Your task to perform on an android device: Who is the prime minister of the United Kingdom? Image 0: 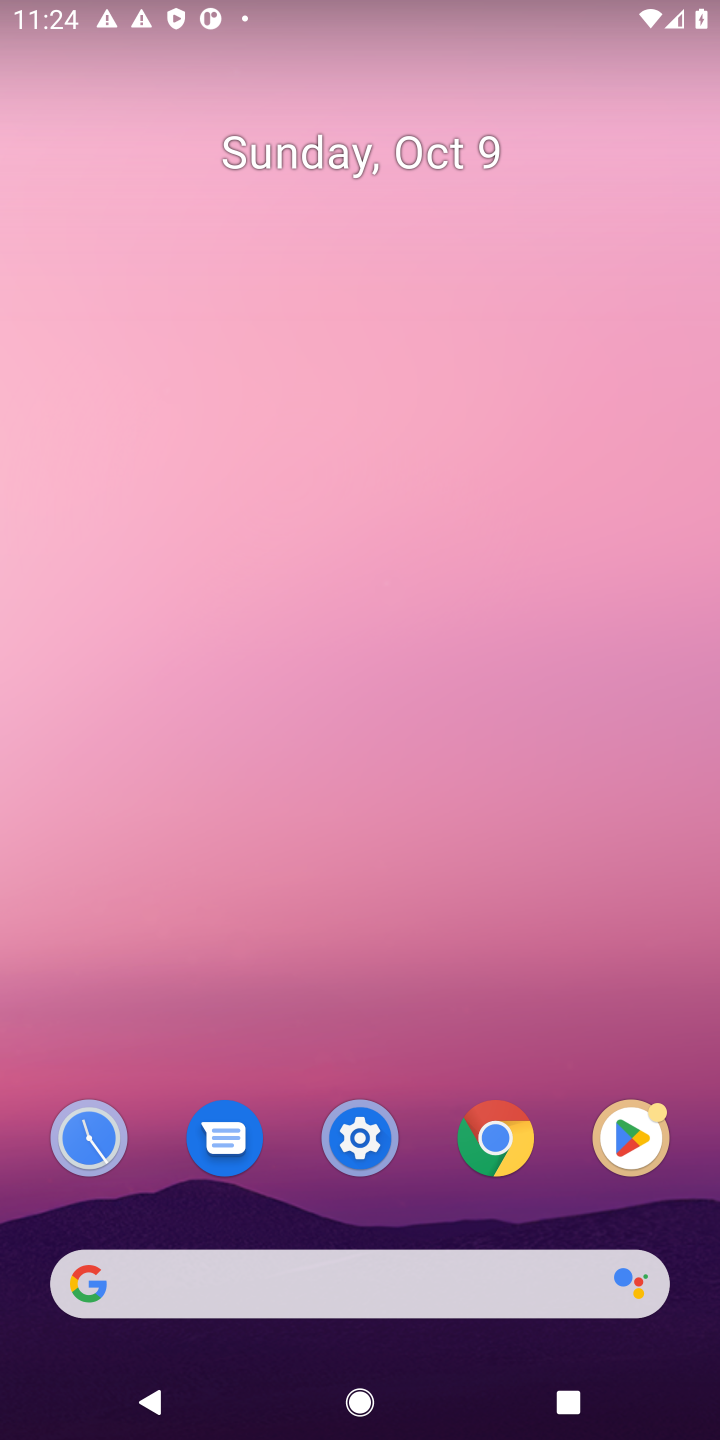
Step 0: click (518, 1132)
Your task to perform on an android device: Who is the prime minister of the United Kingdom? Image 1: 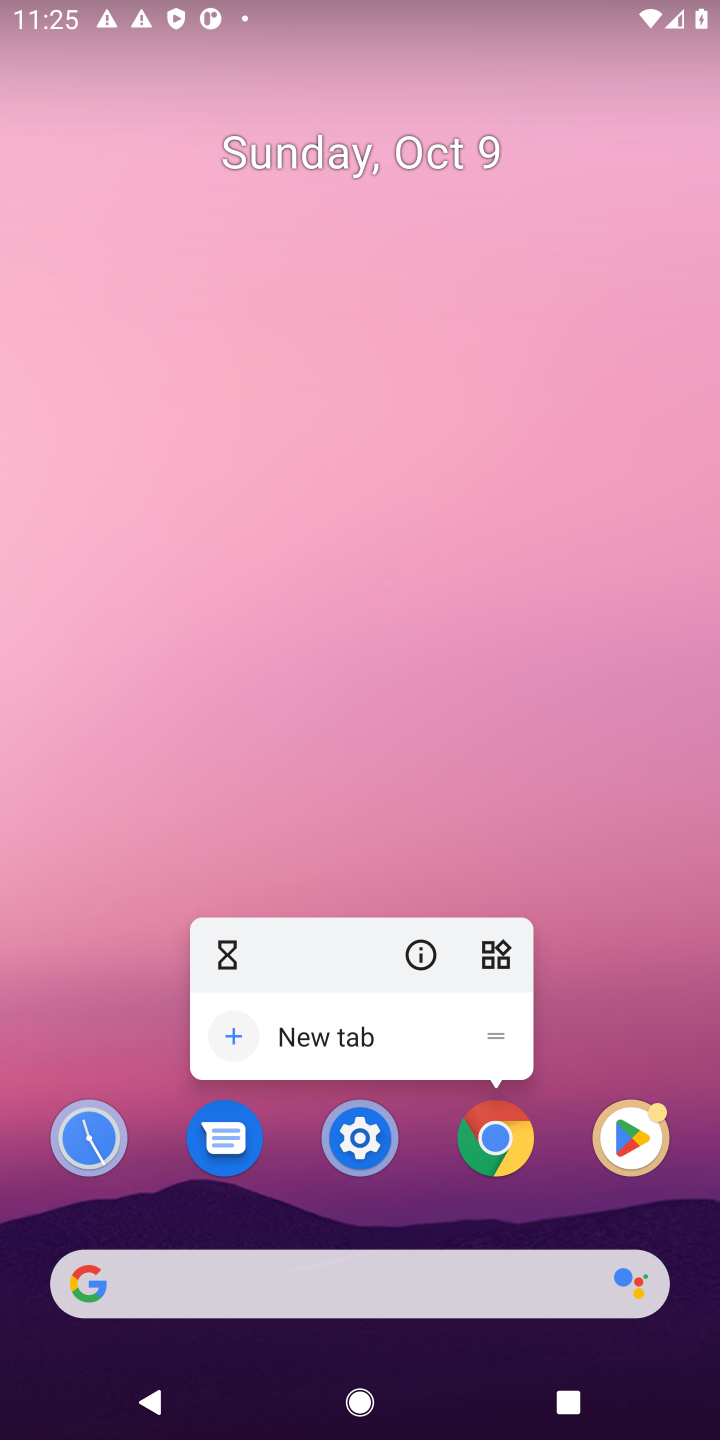
Step 1: click (494, 1136)
Your task to perform on an android device: Who is the prime minister of the United Kingdom? Image 2: 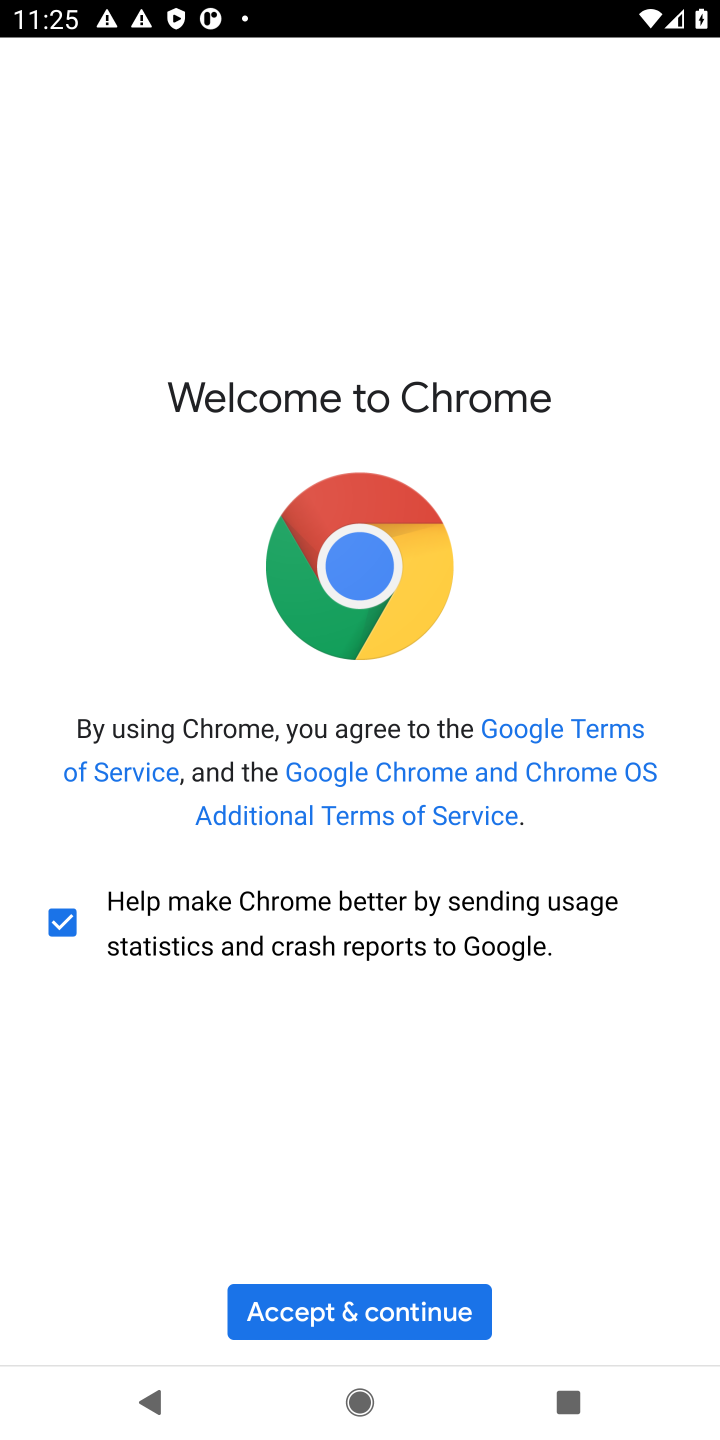
Step 2: click (272, 1315)
Your task to perform on an android device: Who is the prime minister of the United Kingdom? Image 3: 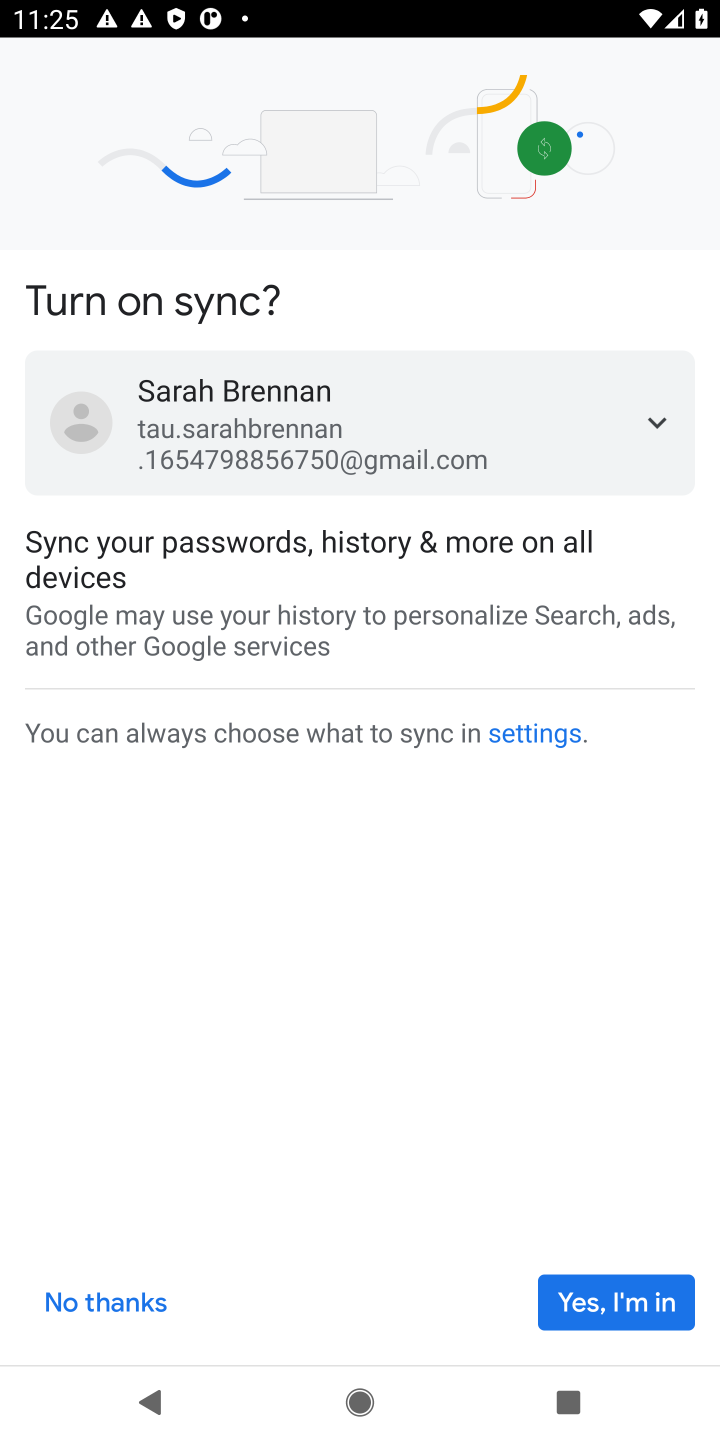
Step 3: click (626, 1283)
Your task to perform on an android device: Who is the prime minister of the United Kingdom? Image 4: 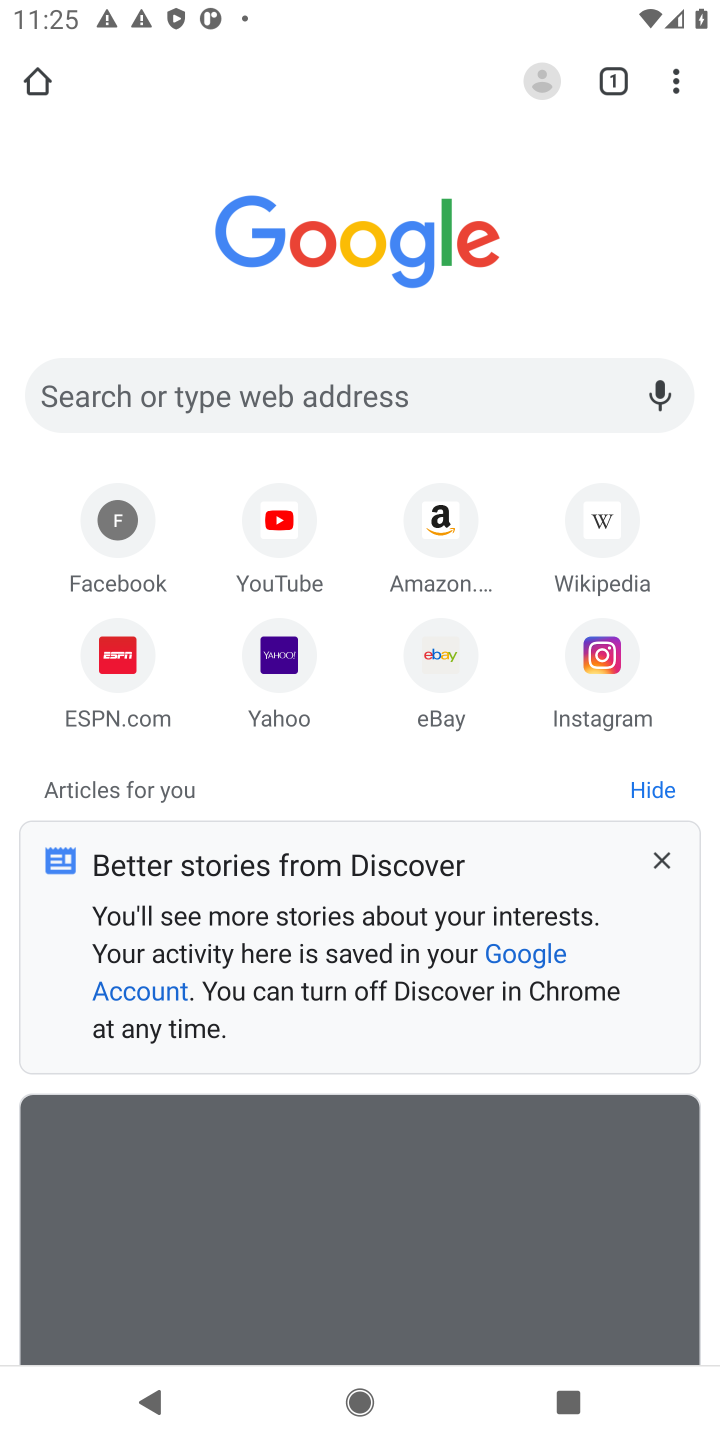
Step 4: click (305, 374)
Your task to perform on an android device: Who is the prime minister of the United Kingdom? Image 5: 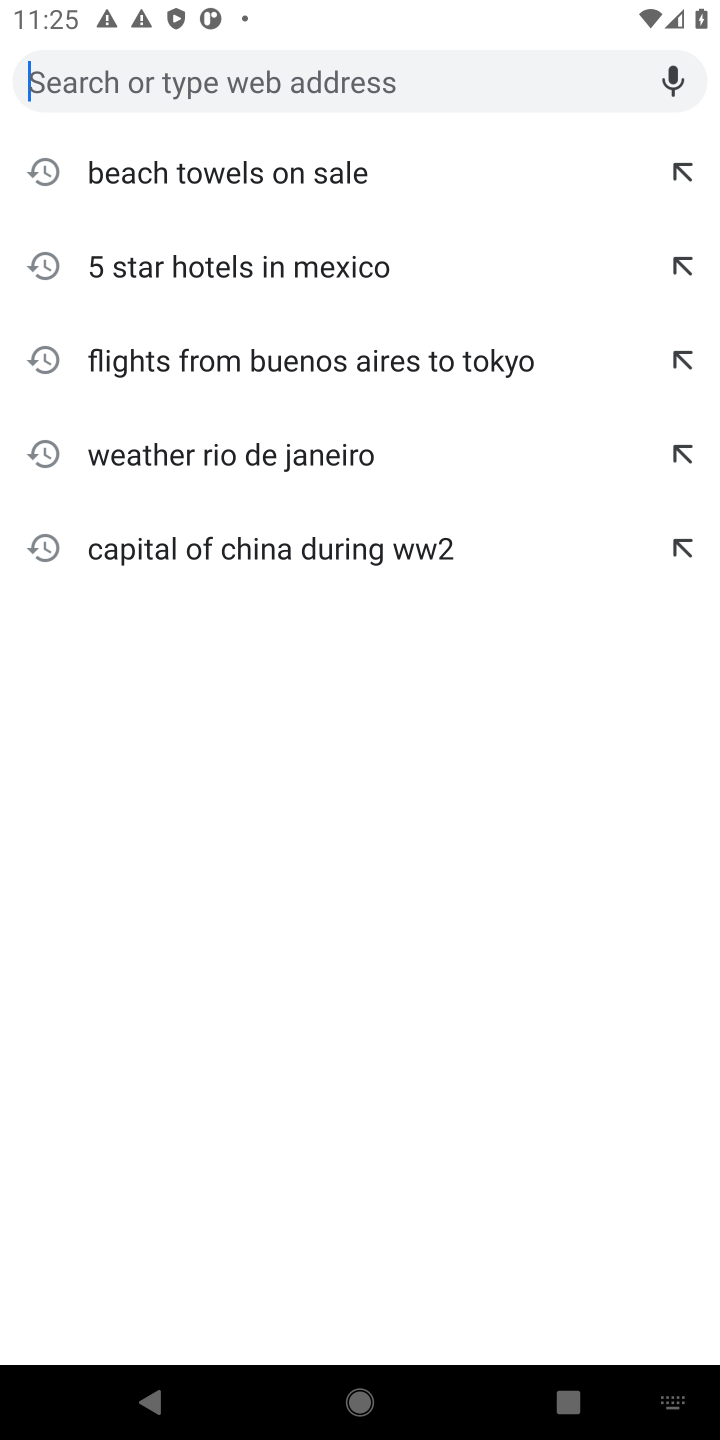
Step 5: type "pm of uk"
Your task to perform on an android device: Who is the prime minister of the United Kingdom? Image 6: 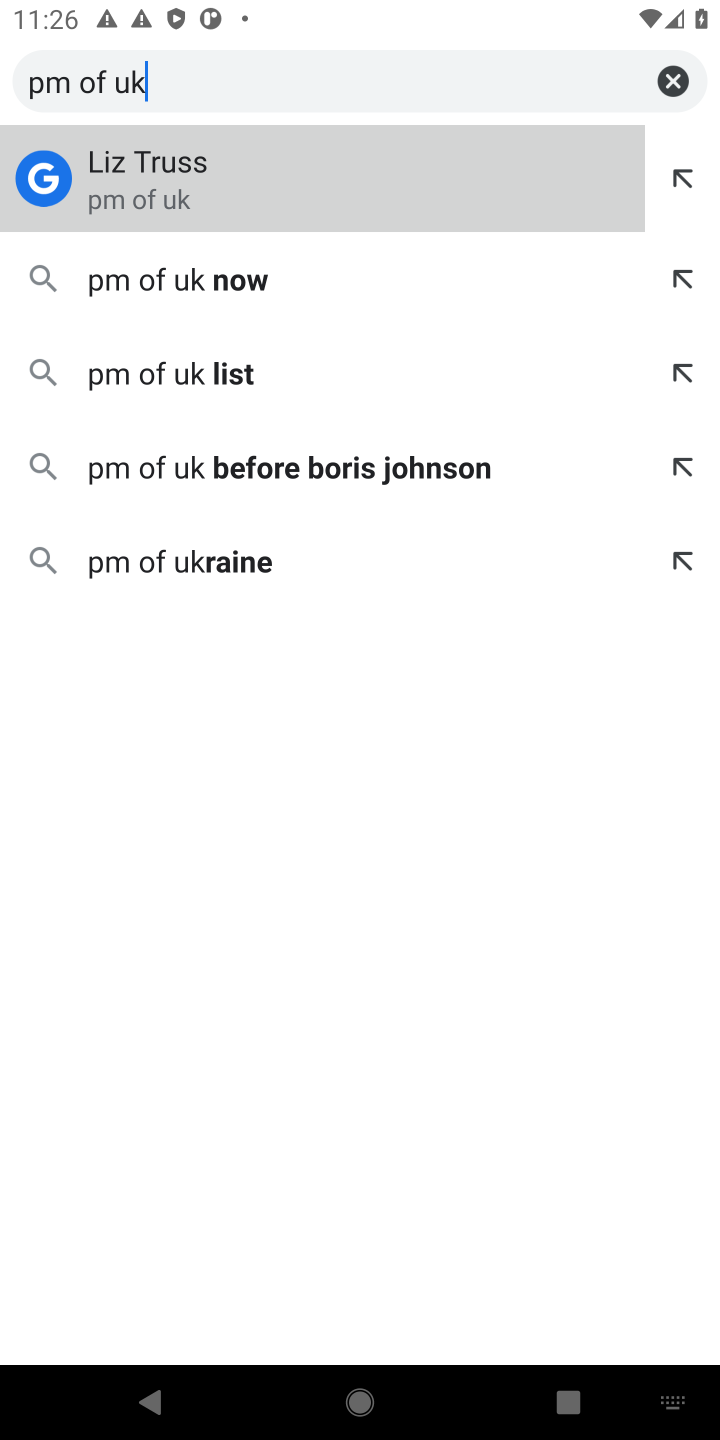
Step 6: click (238, 198)
Your task to perform on an android device: Who is the prime minister of the United Kingdom? Image 7: 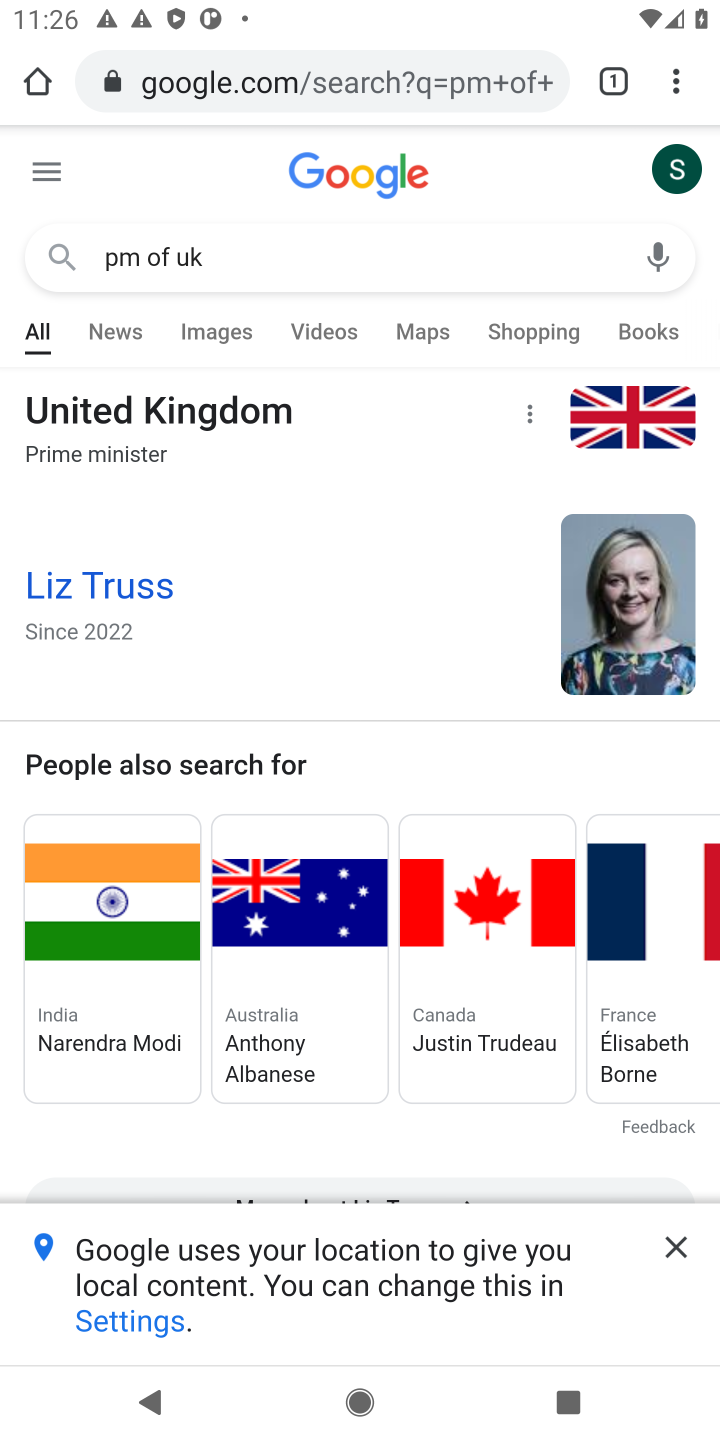
Step 7: task complete